Your task to perform on an android device: see tabs open on other devices in the chrome app Image 0: 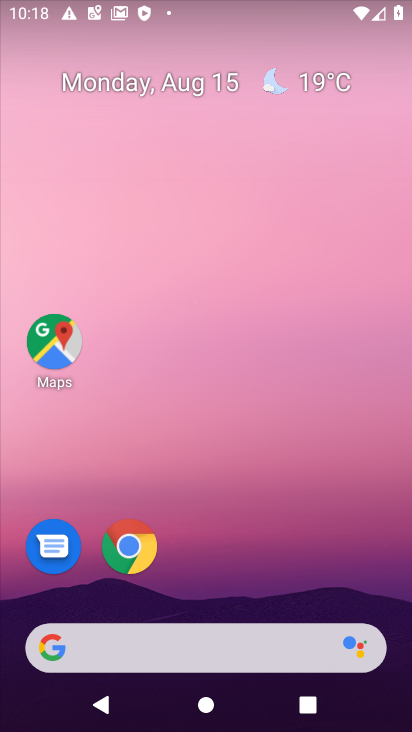
Step 0: click (133, 543)
Your task to perform on an android device: see tabs open on other devices in the chrome app Image 1: 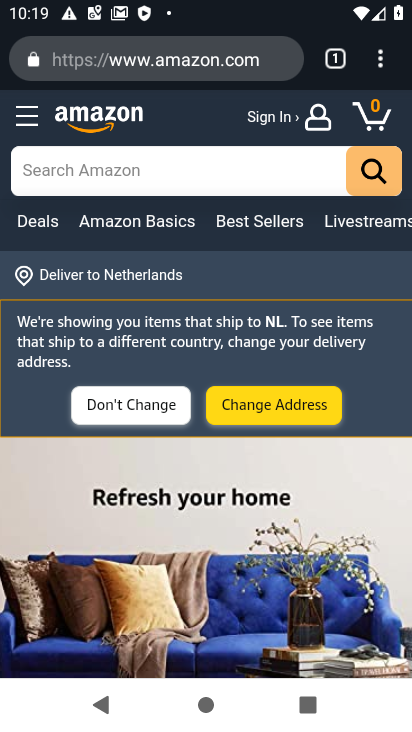
Step 1: click (381, 65)
Your task to perform on an android device: see tabs open on other devices in the chrome app Image 2: 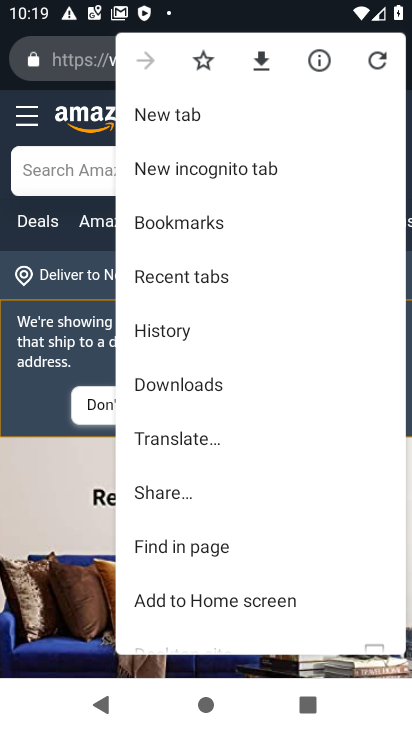
Step 2: click (167, 276)
Your task to perform on an android device: see tabs open on other devices in the chrome app Image 3: 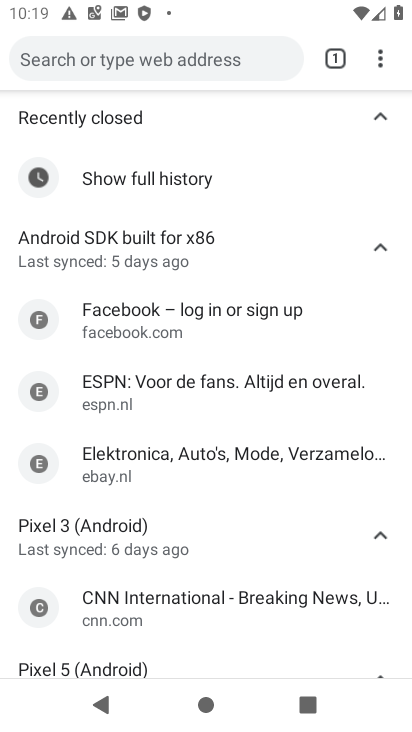
Step 3: task complete